Your task to perform on an android device: add a contact in the contacts app Image 0: 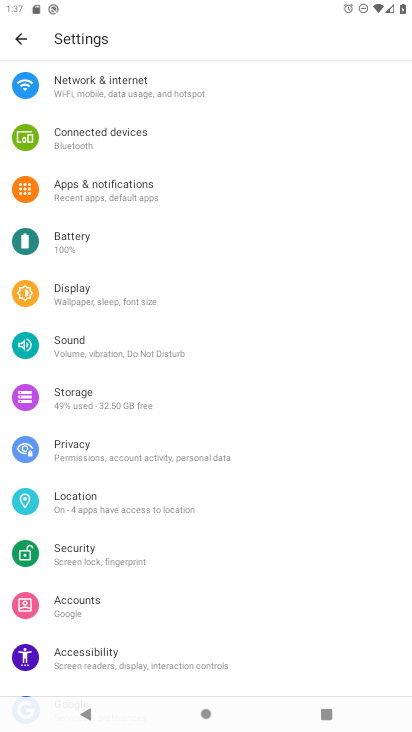
Step 0: press home button
Your task to perform on an android device: add a contact in the contacts app Image 1: 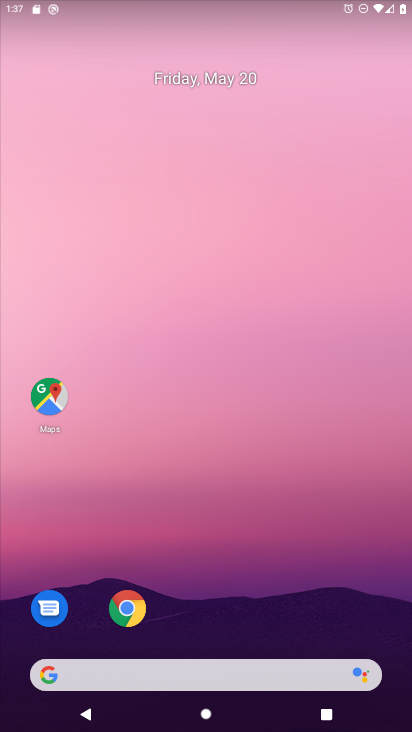
Step 1: drag from (258, 636) to (374, 28)
Your task to perform on an android device: add a contact in the contacts app Image 2: 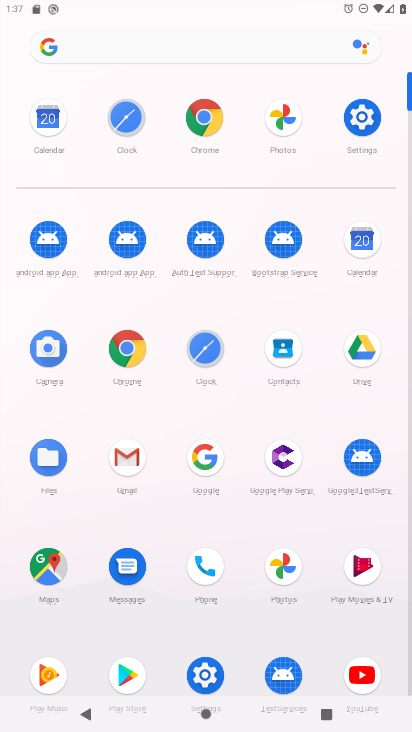
Step 2: click (286, 349)
Your task to perform on an android device: add a contact in the contacts app Image 3: 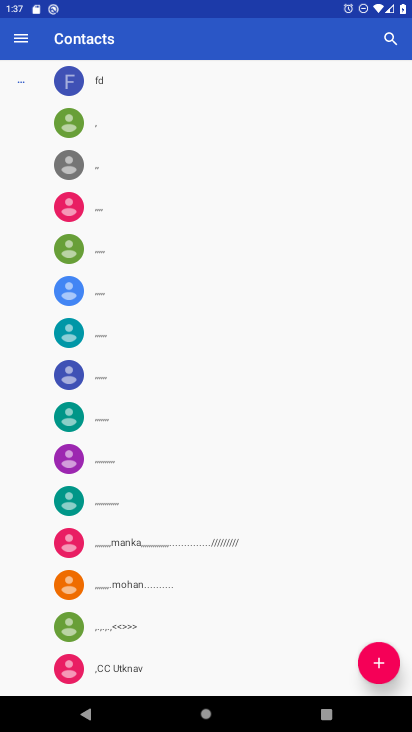
Step 3: click (369, 661)
Your task to perform on an android device: add a contact in the contacts app Image 4: 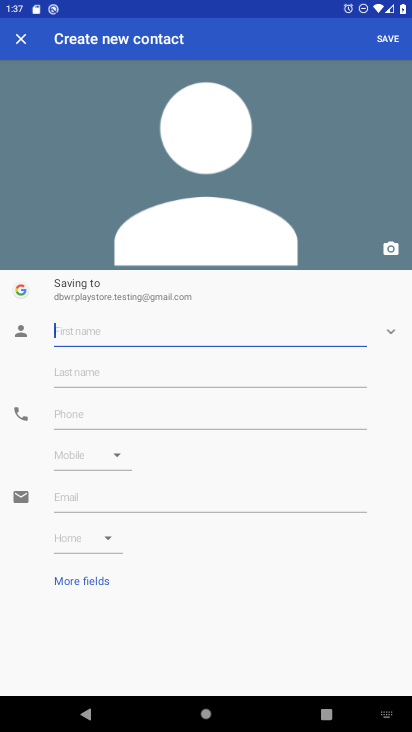
Step 4: click (286, 319)
Your task to perform on an android device: add a contact in the contacts app Image 5: 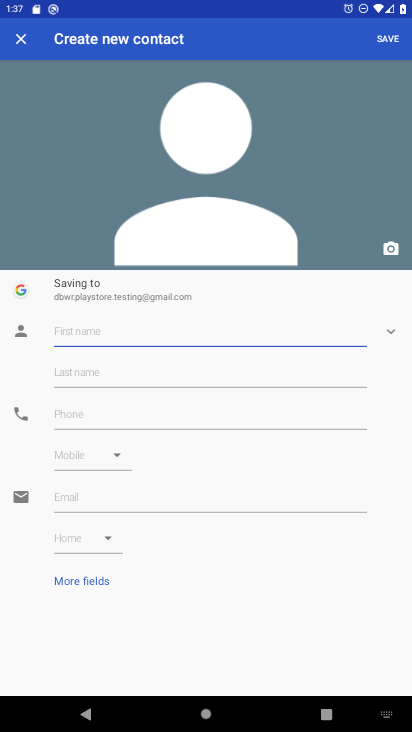
Step 5: type "nnm"
Your task to perform on an android device: add a contact in the contacts app Image 6: 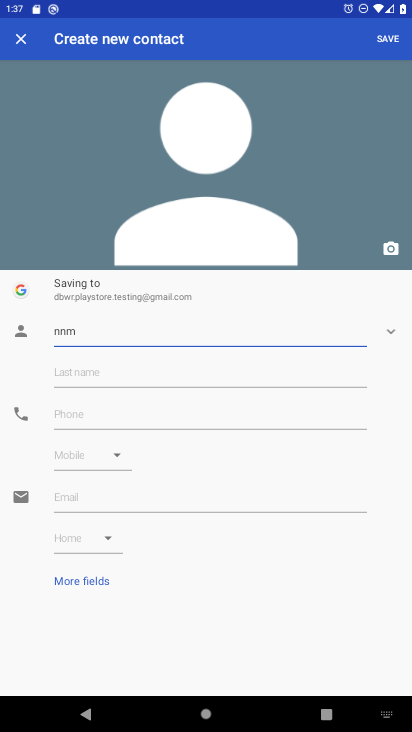
Step 6: click (64, 407)
Your task to perform on an android device: add a contact in the contacts app Image 7: 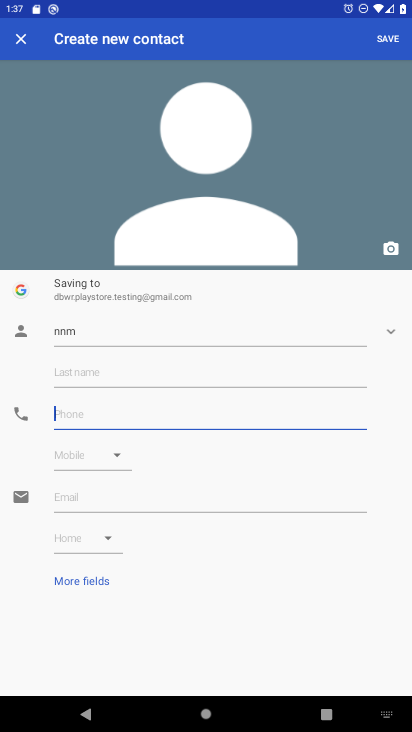
Step 7: type "8654"
Your task to perform on an android device: add a contact in the contacts app Image 8: 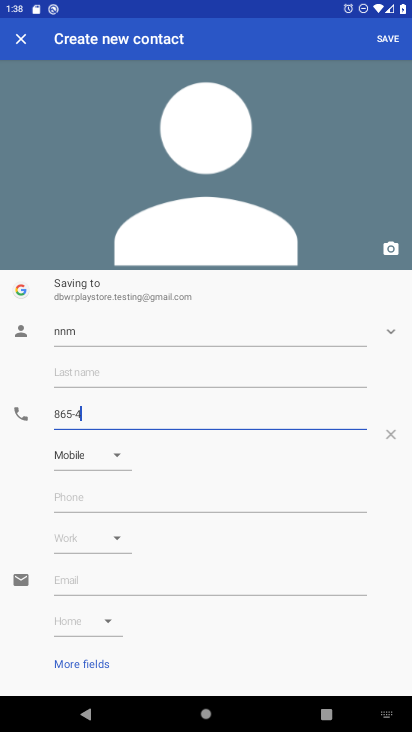
Step 8: click (376, 34)
Your task to perform on an android device: add a contact in the contacts app Image 9: 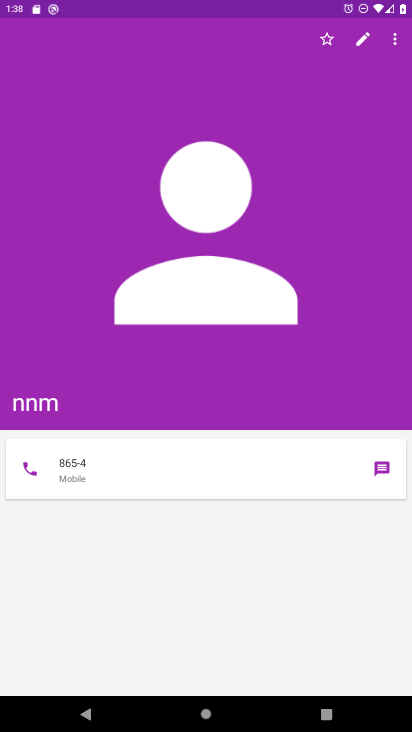
Step 9: task complete